Your task to perform on an android device: change the clock style Image 0: 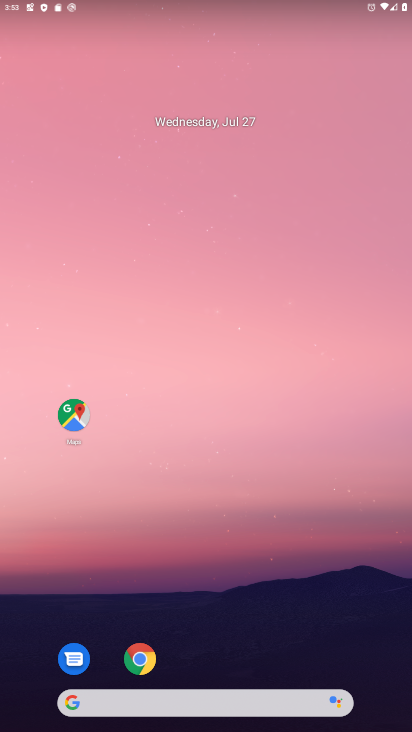
Step 0: drag from (267, 613) to (397, 123)
Your task to perform on an android device: change the clock style Image 1: 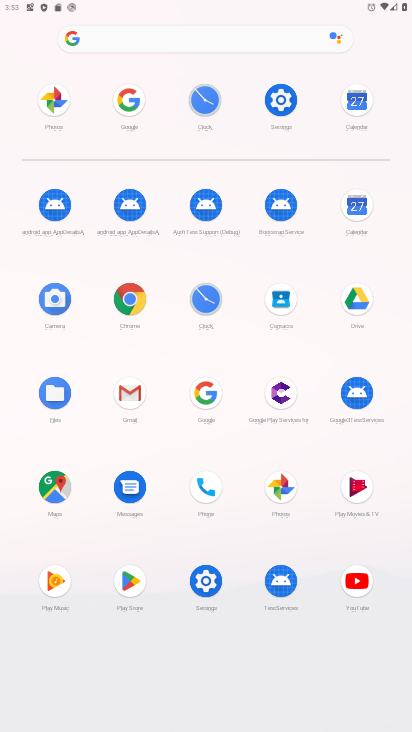
Step 1: click (203, 95)
Your task to perform on an android device: change the clock style Image 2: 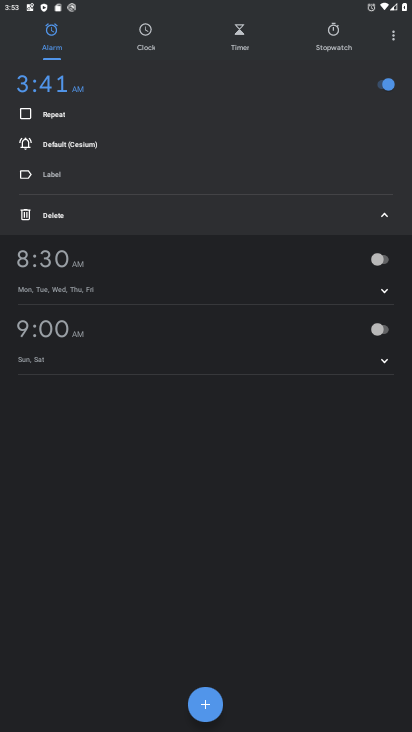
Step 2: click (390, 27)
Your task to perform on an android device: change the clock style Image 3: 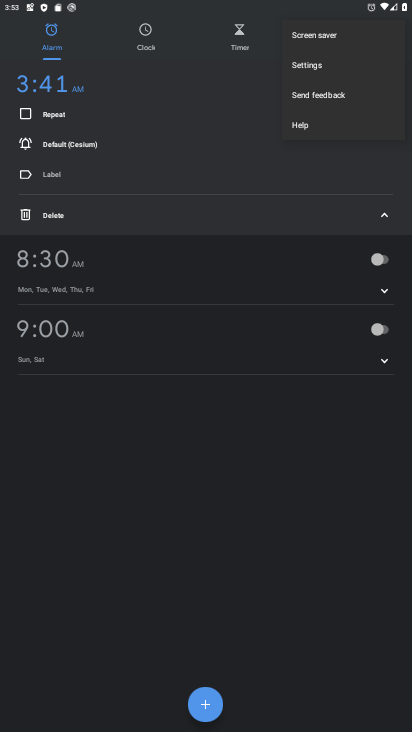
Step 3: click (302, 62)
Your task to perform on an android device: change the clock style Image 4: 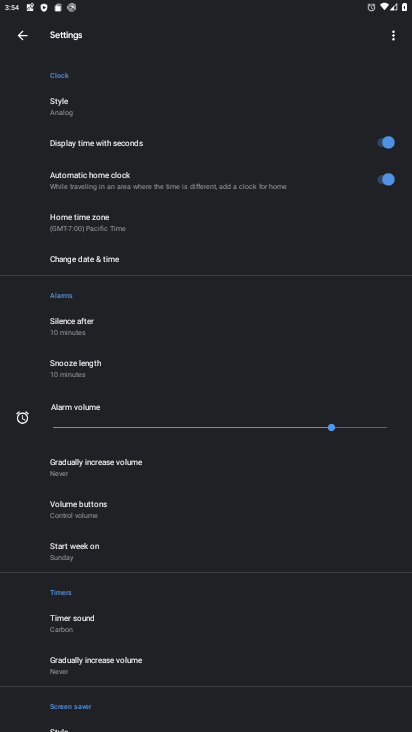
Step 4: click (60, 107)
Your task to perform on an android device: change the clock style Image 5: 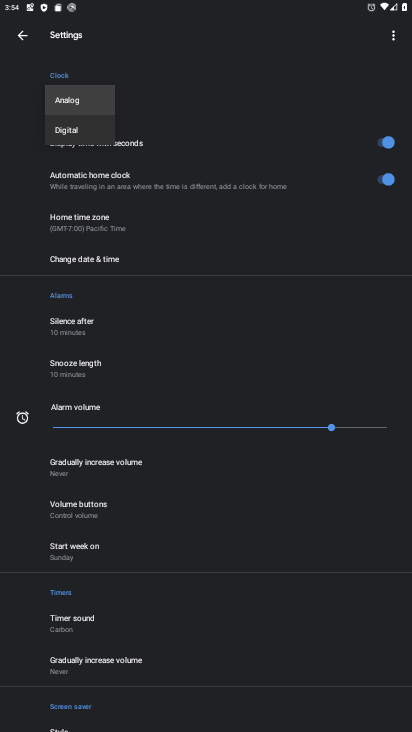
Step 5: click (73, 133)
Your task to perform on an android device: change the clock style Image 6: 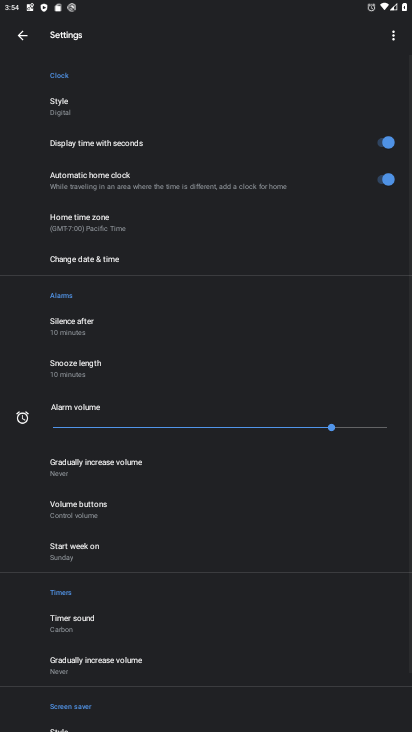
Step 6: task complete